Your task to perform on an android device: See recent photos Image 0: 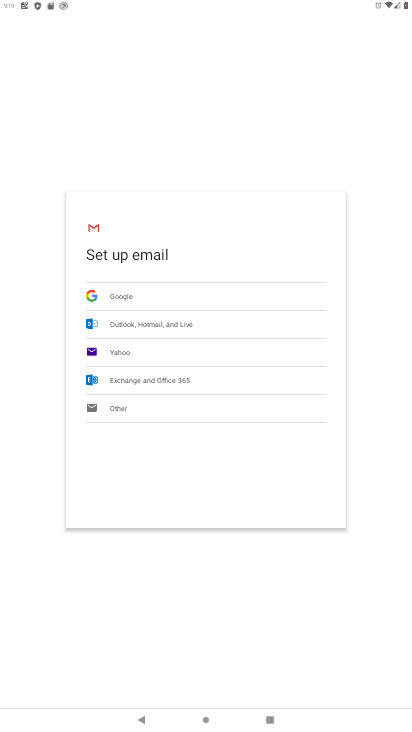
Step 0: press home button
Your task to perform on an android device: See recent photos Image 1: 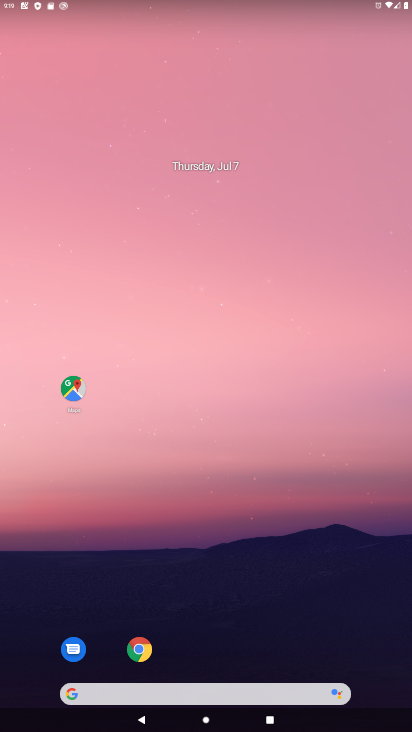
Step 1: drag from (227, 686) to (260, 79)
Your task to perform on an android device: See recent photos Image 2: 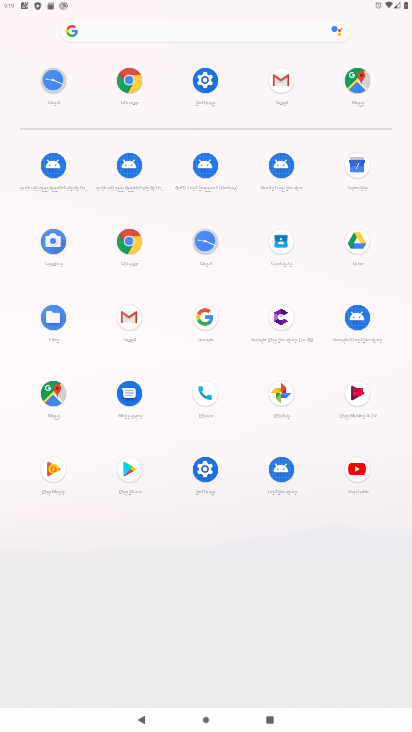
Step 2: click (279, 403)
Your task to perform on an android device: See recent photos Image 3: 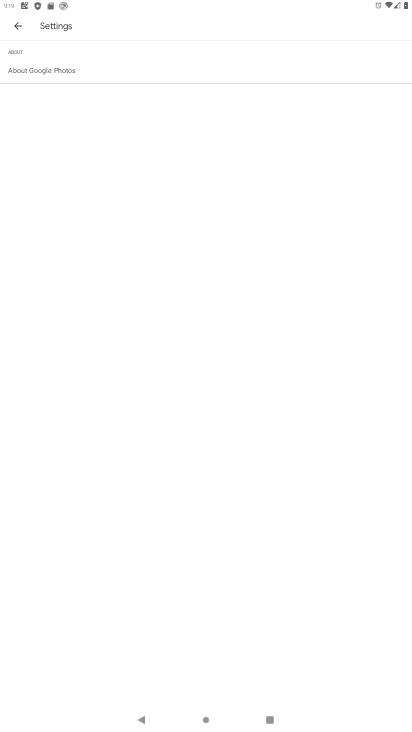
Step 3: task complete